Your task to perform on an android device: toggle wifi Image 0: 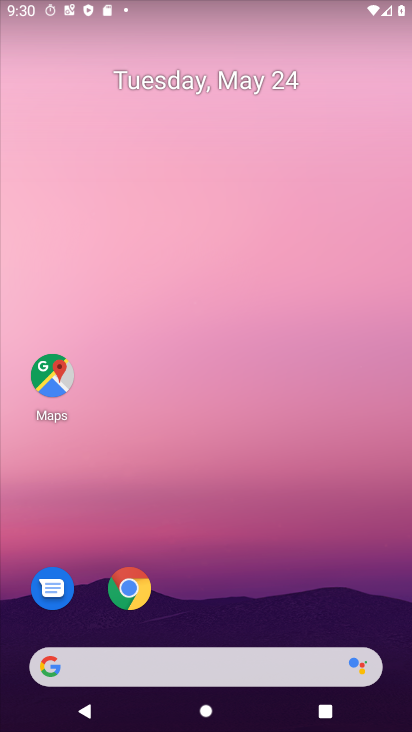
Step 0: drag from (151, 16) to (206, 457)
Your task to perform on an android device: toggle wifi Image 1: 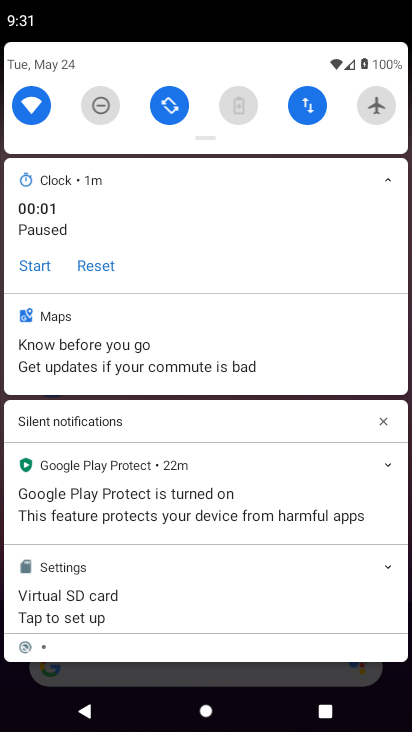
Step 1: drag from (159, 567) to (214, 154)
Your task to perform on an android device: toggle wifi Image 2: 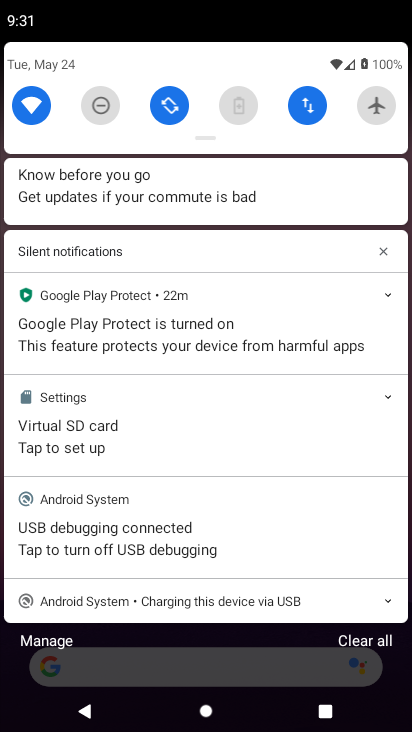
Step 2: click (43, 105)
Your task to perform on an android device: toggle wifi Image 3: 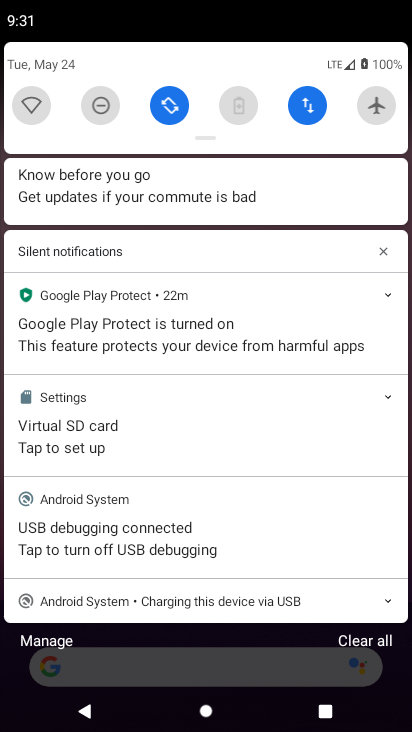
Step 3: task complete